Your task to perform on an android device: toggle show notifications on the lock screen Image 0: 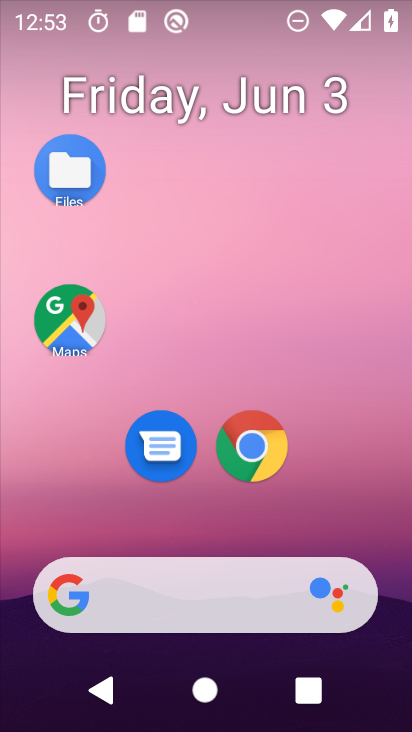
Step 0: drag from (222, 371) to (150, 115)
Your task to perform on an android device: toggle show notifications on the lock screen Image 1: 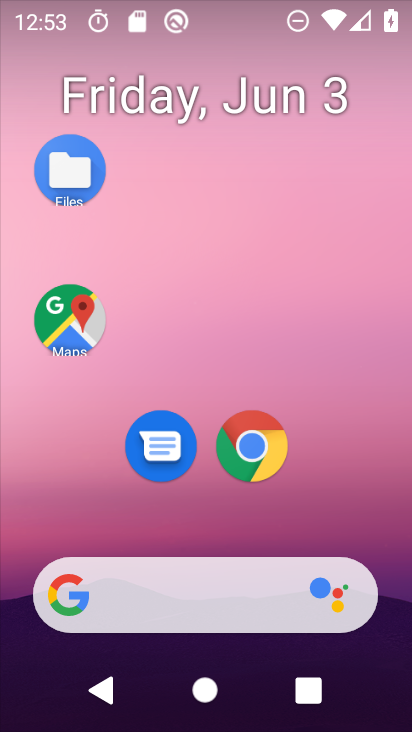
Step 1: drag from (227, 600) to (168, 159)
Your task to perform on an android device: toggle show notifications on the lock screen Image 2: 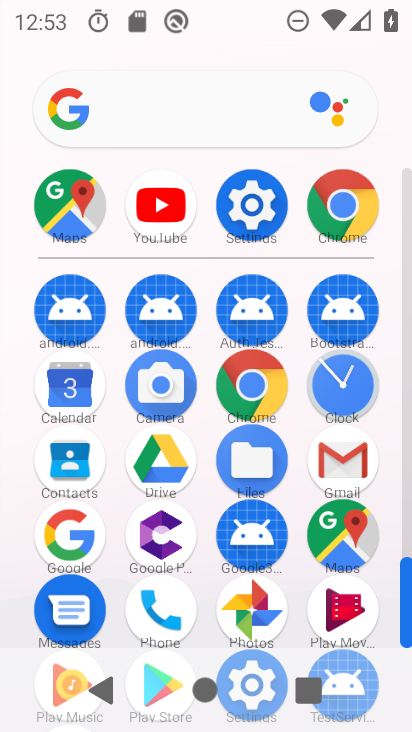
Step 2: drag from (251, 591) to (221, 179)
Your task to perform on an android device: toggle show notifications on the lock screen Image 3: 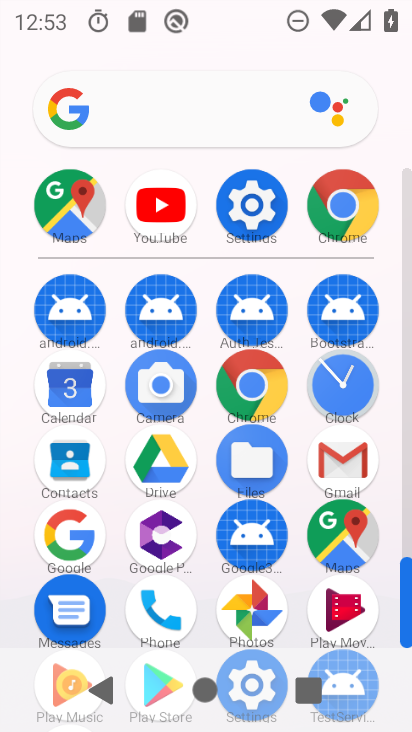
Step 3: drag from (269, 529) to (170, 167)
Your task to perform on an android device: toggle show notifications on the lock screen Image 4: 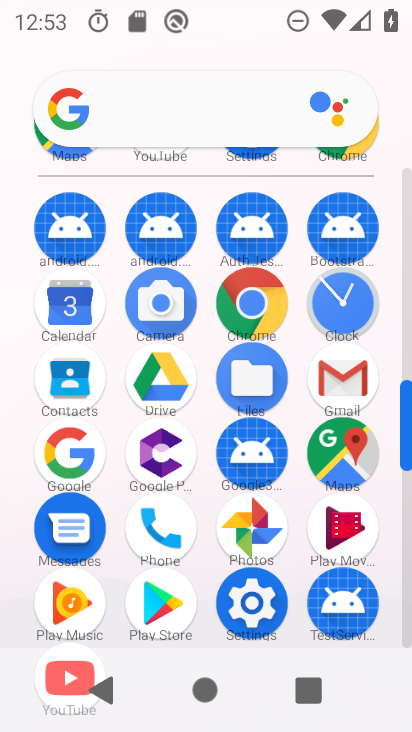
Step 4: click (215, 27)
Your task to perform on an android device: toggle show notifications on the lock screen Image 5: 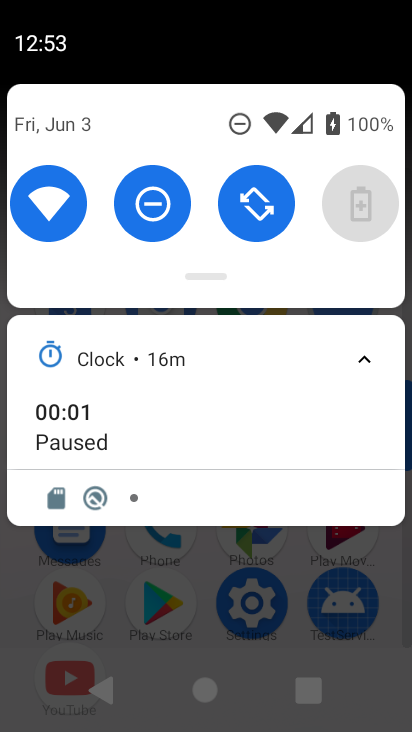
Step 5: drag from (244, 357) to (197, 27)
Your task to perform on an android device: toggle show notifications on the lock screen Image 6: 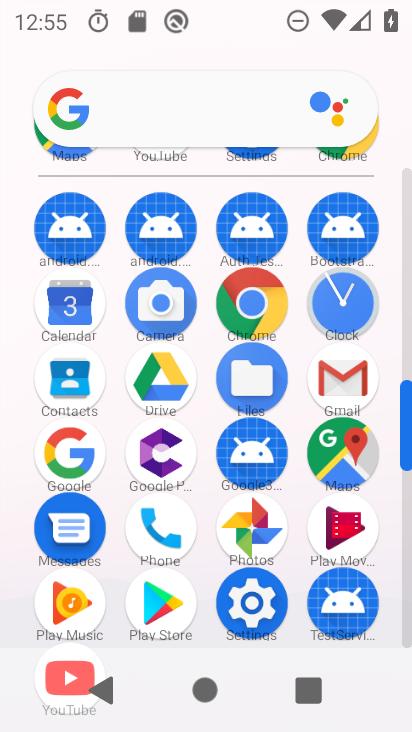
Step 6: click (338, 307)
Your task to perform on an android device: toggle show notifications on the lock screen Image 7: 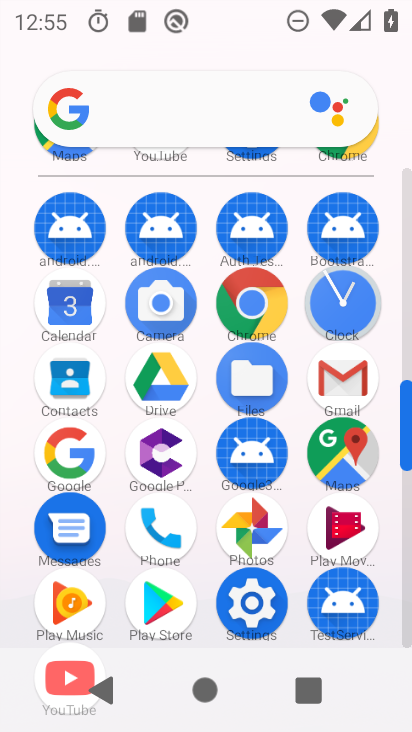
Step 7: click (337, 307)
Your task to perform on an android device: toggle show notifications on the lock screen Image 8: 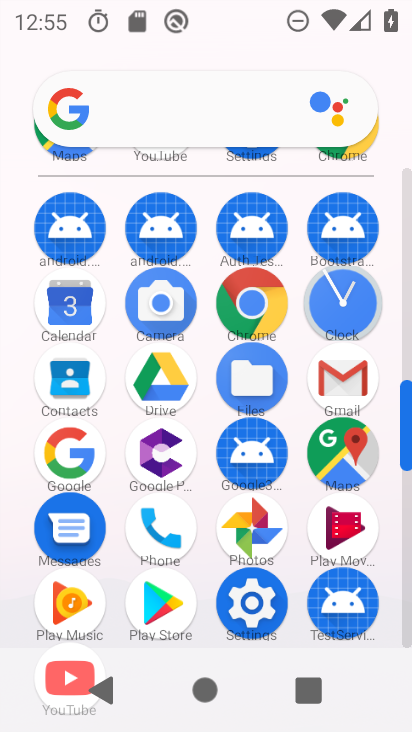
Step 8: click (336, 307)
Your task to perform on an android device: toggle show notifications on the lock screen Image 9: 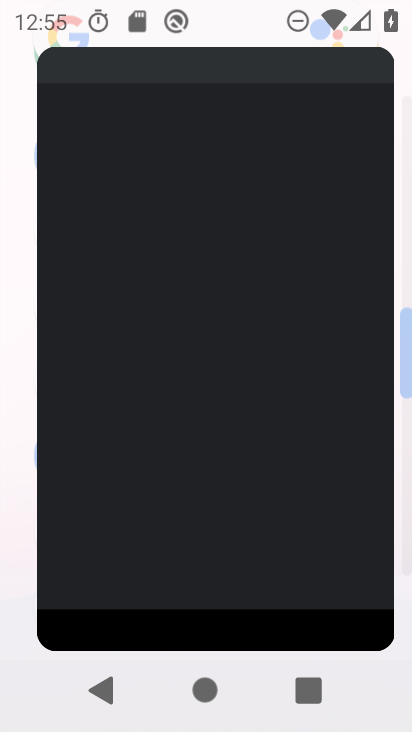
Step 9: click (336, 307)
Your task to perform on an android device: toggle show notifications on the lock screen Image 10: 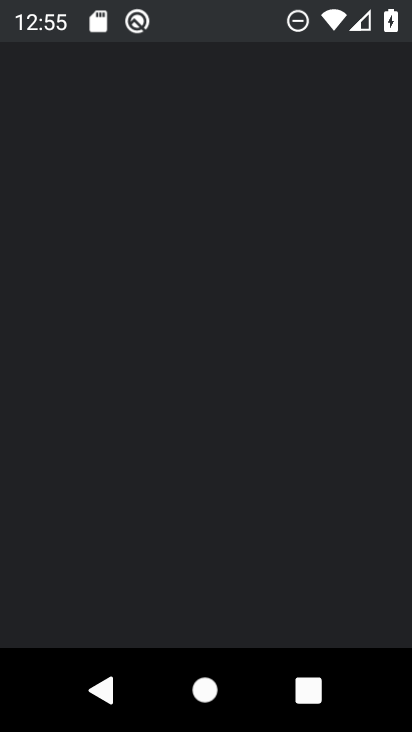
Step 10: click (336, 307)
Your task to perform on an android device: toggle show notifications on the lock screen Image 11: 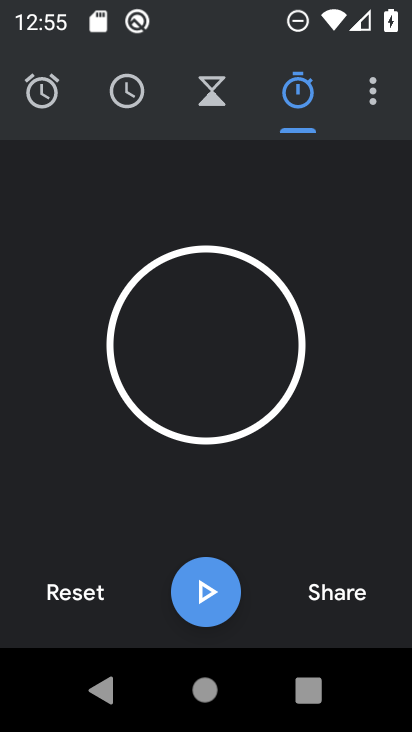
Step 11: press home button
Your task to perform on an android device: toggle show notifications on the lock screen Image 12: 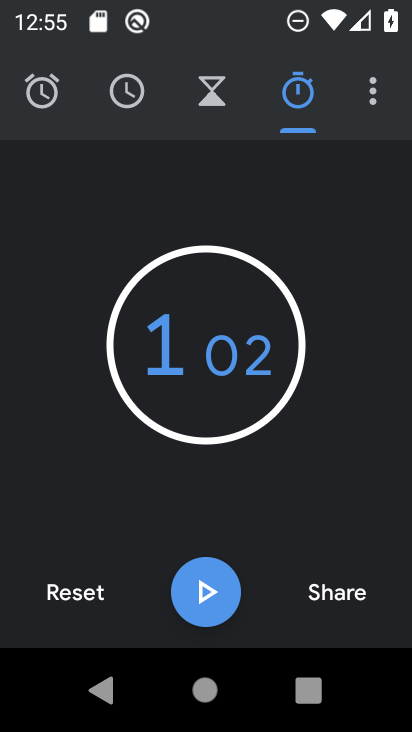
Step 12: press home button
Your task to perform on an android device: toggle show notifications on the lock screen Image 13: 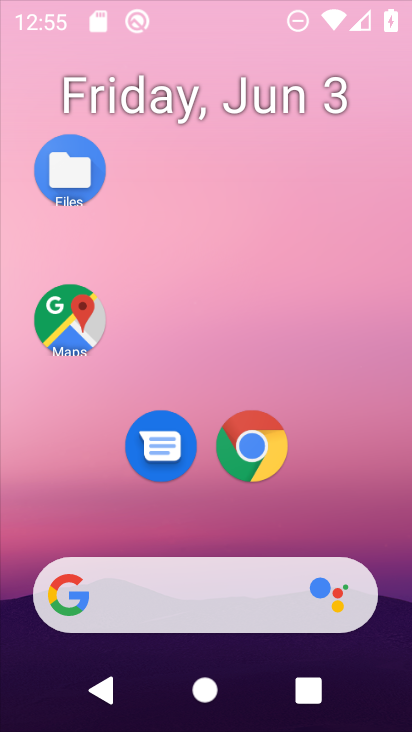
Step 13: press home button
Your task to perform on an android device: toggle show notifications on the lock screen Image 14: 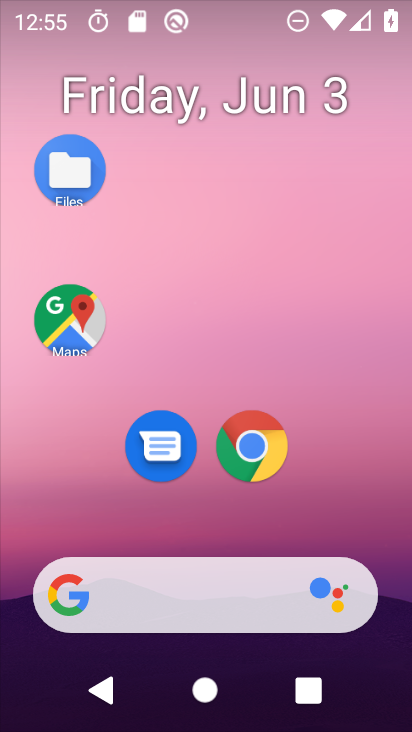
Step 14: press home button
Your task to perform on an android device: toggle show notifications on the lock screen Image 15: 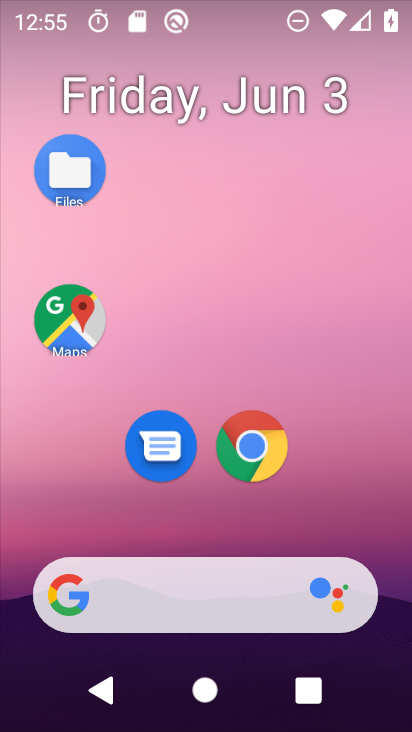
Step 15: press home button
Your task to perform on an android device: toggle show notifications on the lock screen Image 16: 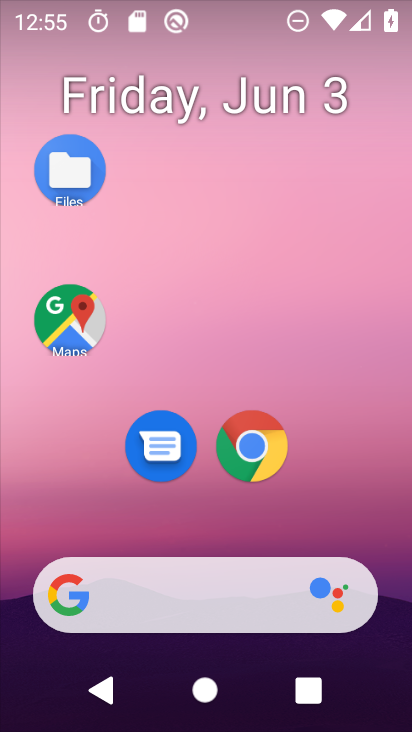
Step 16: drag from (261, 677) to (219, 33)
Your task to perform on an android device: toggle show notifications on the lock screen Image 17: 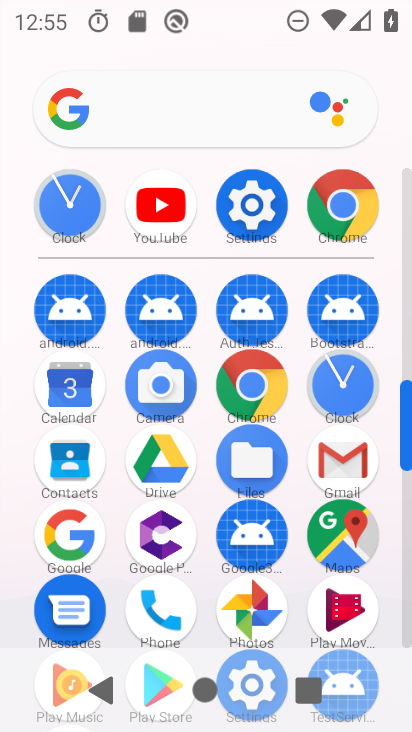
Step 17: click (247, 205)
Your task to perform on an android device: toggle show notifications on the lock screen Image 18: 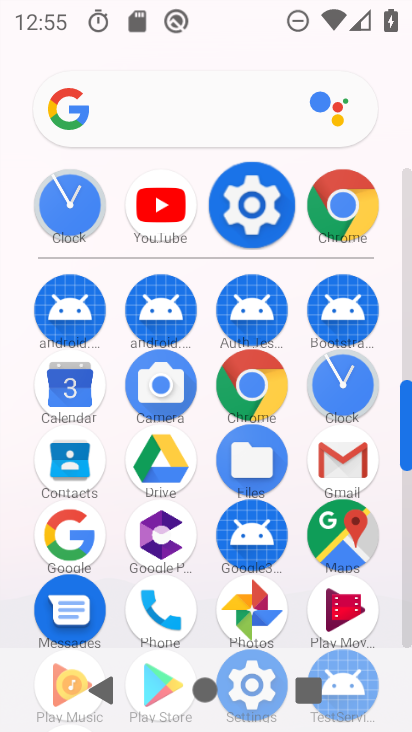
Step 18: click (243, 201)
Your task to perform on an android device: toggle show notifications on the lock screen Image 19: 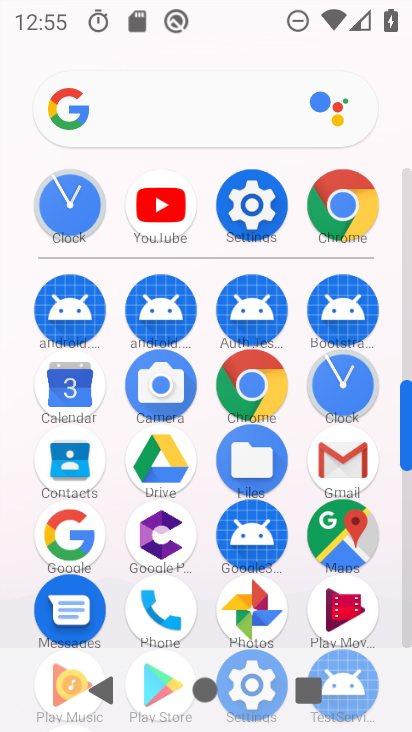
Step 19: click (247, 194)
Your task to perform on an android device: toggle show notifications on the lock screen Image 20: 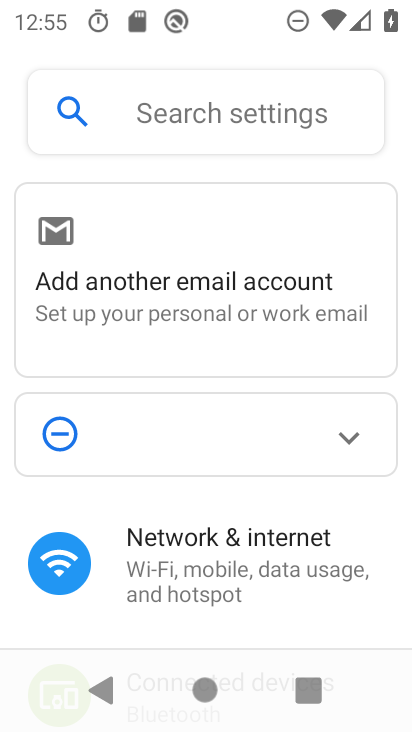
Step 20: drag from (244, 546) to (162, 185)
Your task to perform on an android device: toggle show notifications on the lock screen Image 21: 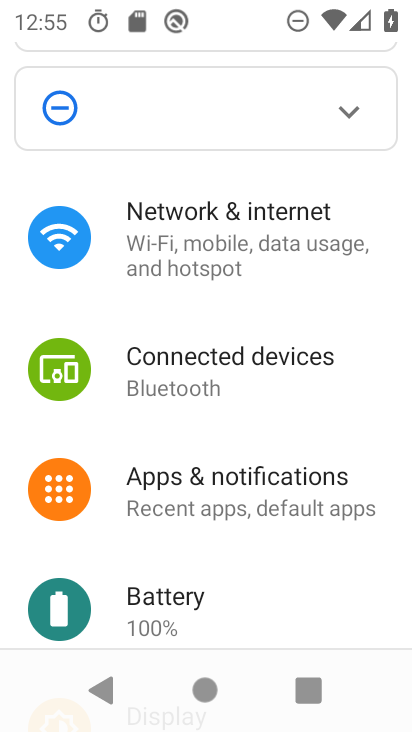
Step 21: drag from (197, 483) to (160, 270)
Your task to perform on an android device: toggle show notifications on the lock screen Image 22: 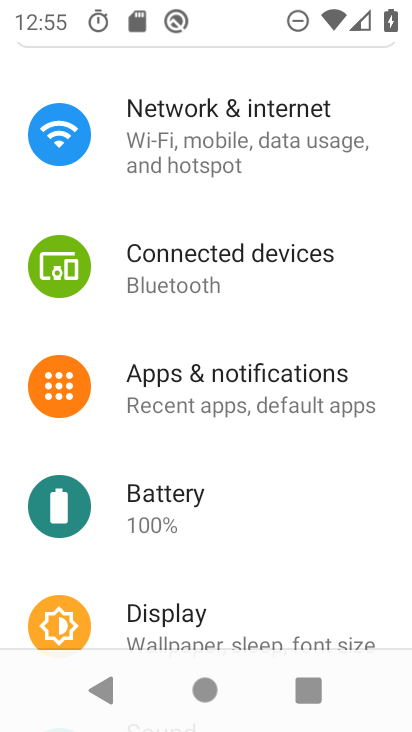
Step 22: drag from (256, 535) to (215, 267)
Your task to perform on an android device: toggle show notifications on the lock screen Image 23: 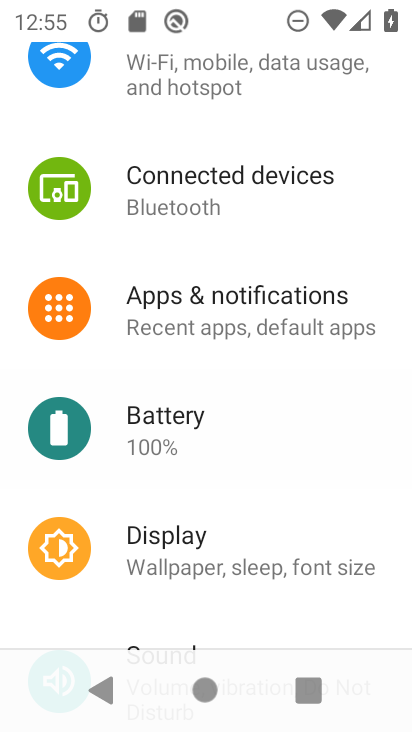
Step 23: click (234, 179)
Your task to perform on an android device: toggle show notifications on the lock screen Image 24: 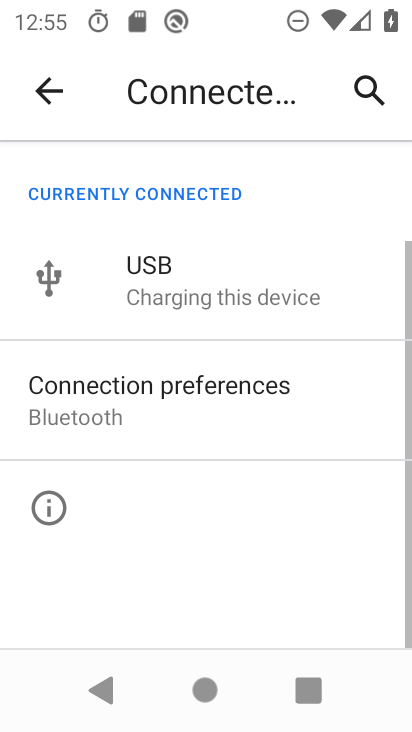
Step 24: click (237, 294)
Your task to perform on an android device: toggle show notifications on the lock screen Image 25: 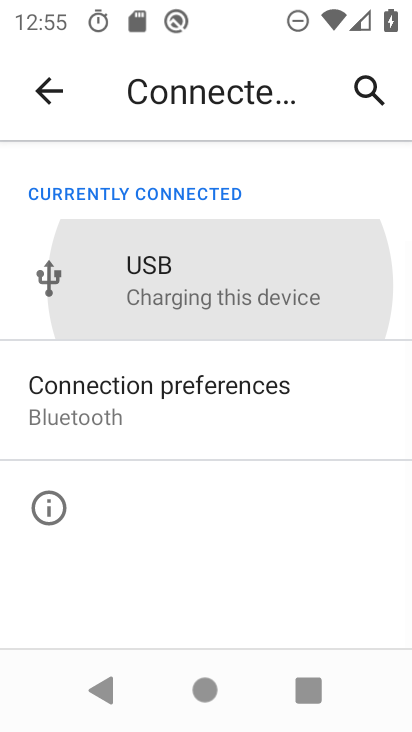
Step 25: click (237, 294)
Your task to perform on an android device: toggle show notifications on the lock screen Image 26: 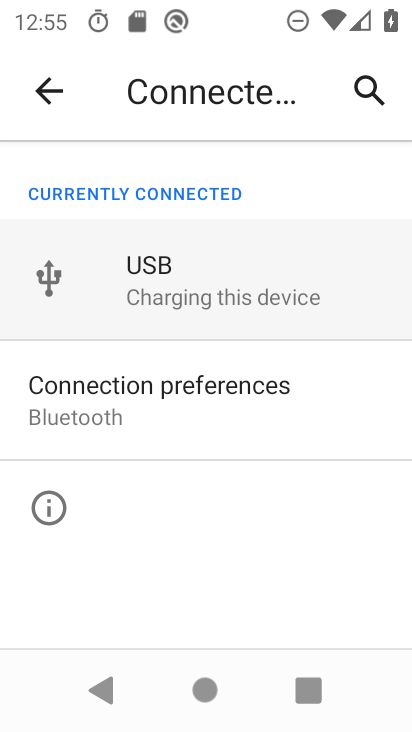
Step 26: click (237, 294)
Your task to perform on an android device: toggle show notifications on the lock screen Image 27: 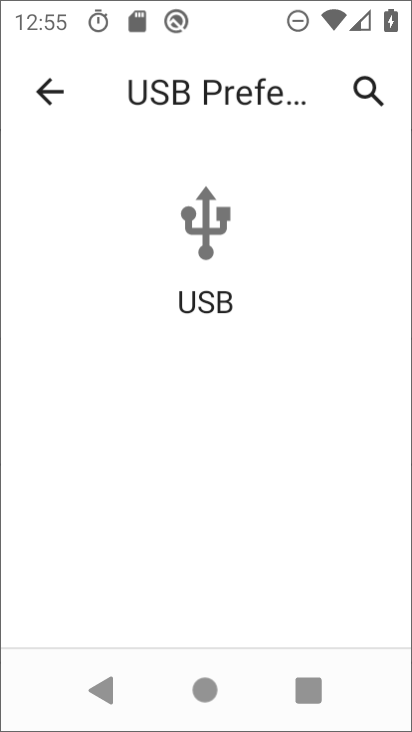
Step 27: click (237, 294)
Your task to perform on an android device: toggle show notifications on the lock screen Image 28: 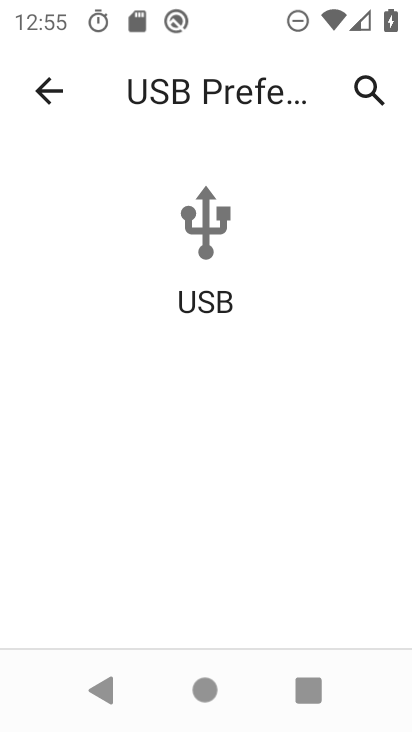
Step 28: click (43, 83)
Your task to perform on an android device: toggle show notifications on the lock screen Image 29: 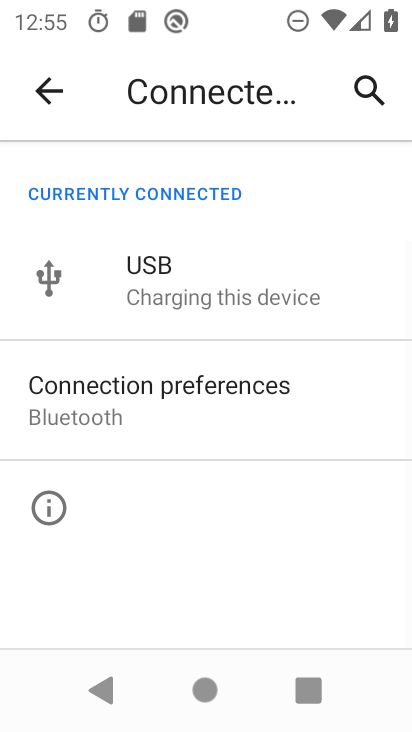
Step 29: click (50, 89)
Your task to perform on an android device: toggle show notifications on the lock screen Image 30: 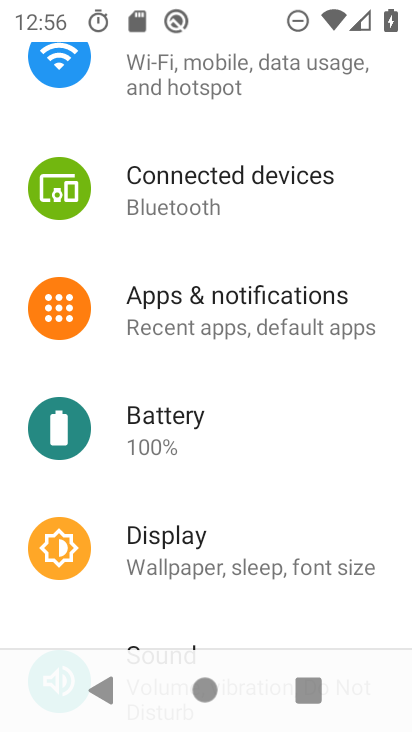
Step 30: click (239, 310)
Your task to perform on an android device: toggle show notifications on the lock screen Image 31: 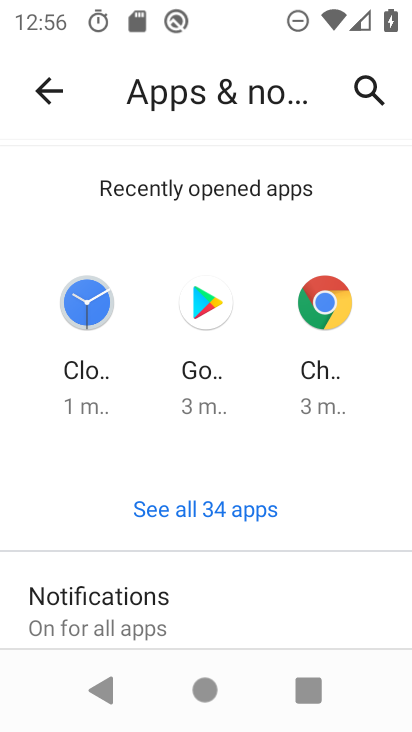
Step 31: drag from (183, 569) to (133, 215)
Your task to perform on an android device: toggle show notifications on the lock screen Image 32: 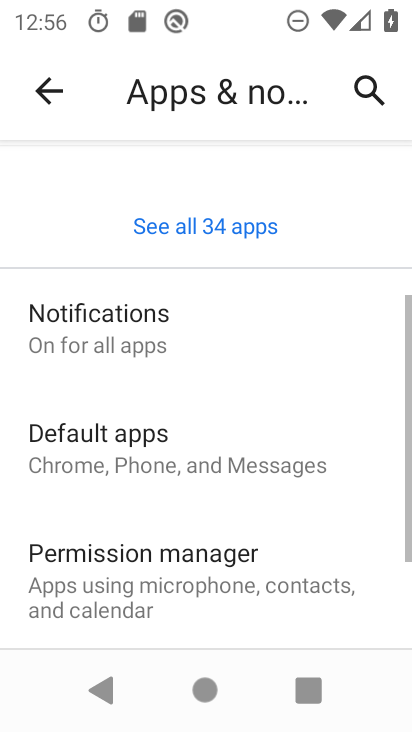
Step 32: drag from (193, 489) to (141, 234)
Your task to perform on an android device: toggle show notifications on the lock screen Image 33: 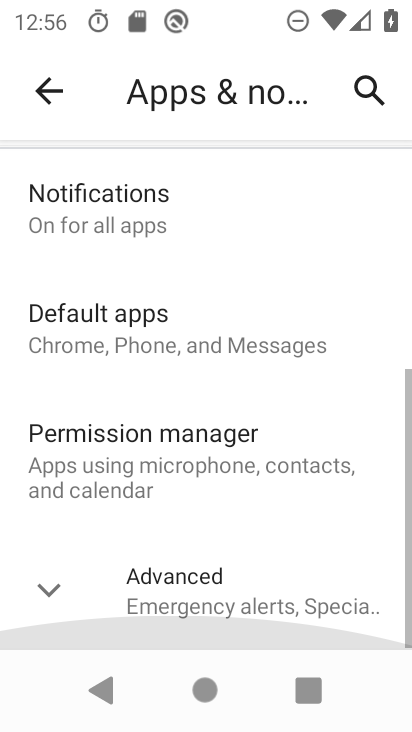
Step 33: drag from (213, 550) to (220, 211)
Your task to perform on an android device: toggle show notifications on the lock screen Image 34: 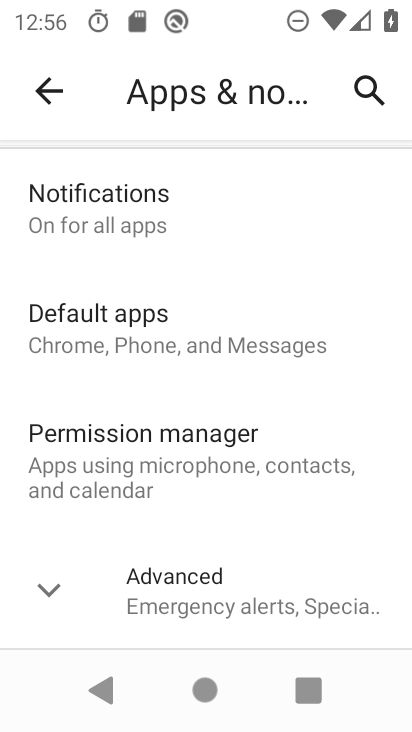
Step 34: click (76, 252)
Your task to perform on an android device: toggle show notifications on the lock screen Image 35: 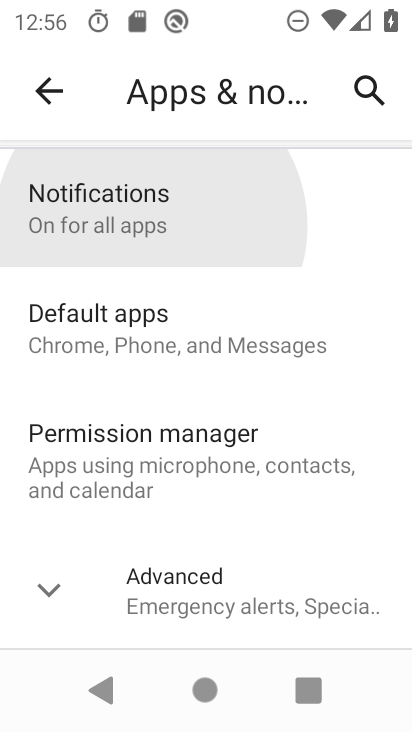
Step 35: click (75, 251)
Your task to perform on an android device: toggle show notifications on the lock screen Image 36: 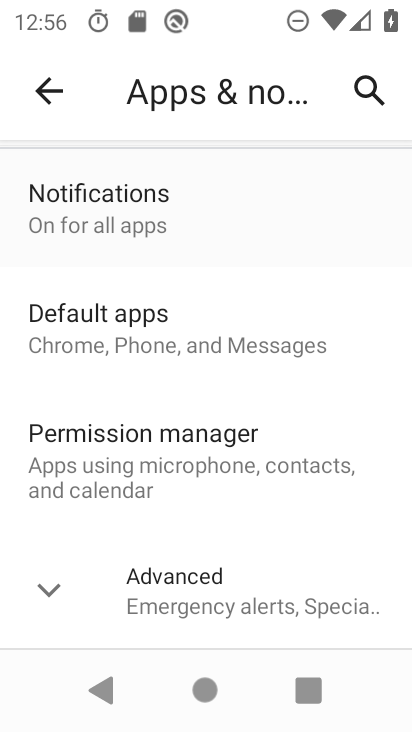
Step 36: click (76, 256)
Your task to perform on an android device: toggle show notifications on the lock screen Image 37: 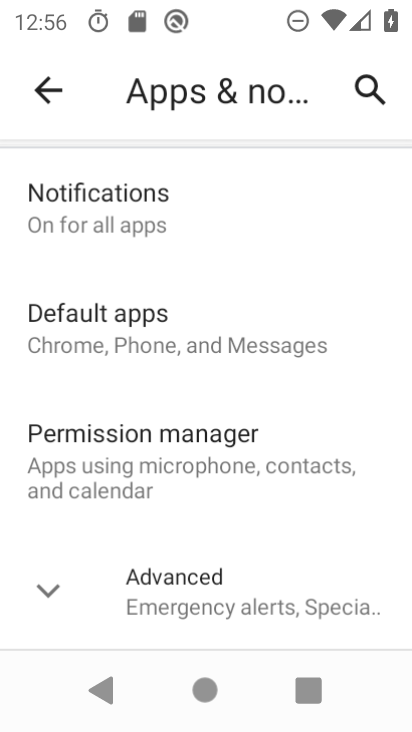
Step 37: click (77, 210)
Your task to perform on an android device: toggle show notifications on the lock screen Image 38: 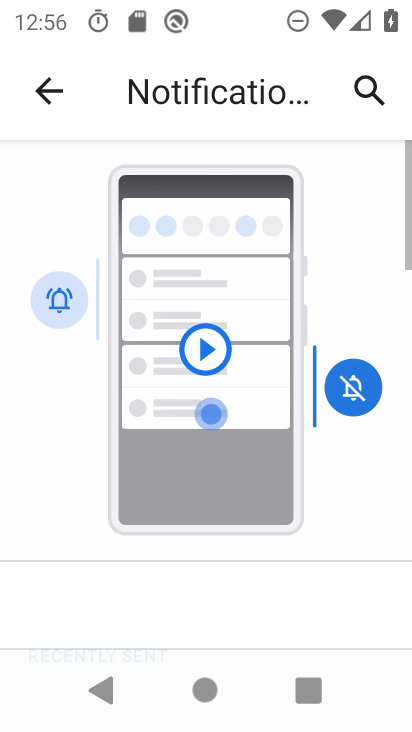
Step 38: drag from (281, 545) to (277, 82)
Your task to perform on an android device: toggle show notifications on the lock screen Image 39: 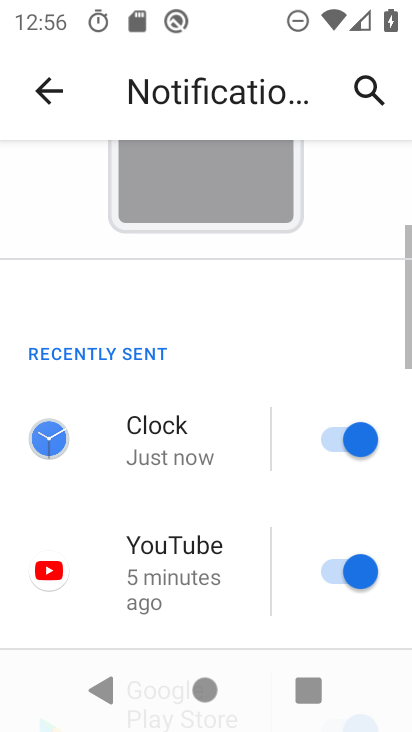
Step 39: drag from (209, 484) to (173, 122)
Your task to perform on an android device: toggle show notifications on the lock screen Image 40: 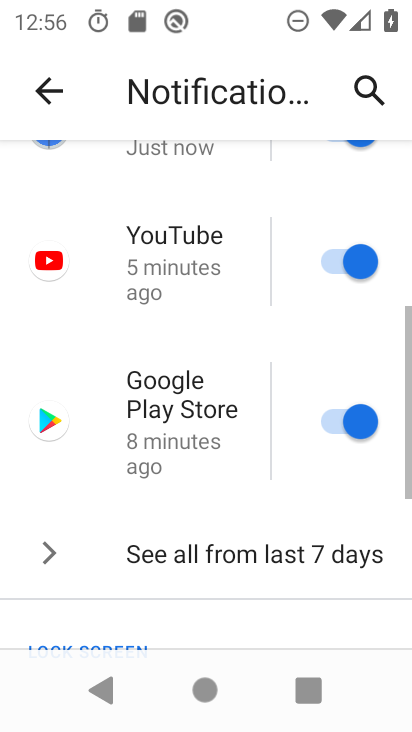
Step 40: drag from (164, 537) to (156, 248)
Your task to perform on an android device: toggle show notifications on the lock screen Image 41: 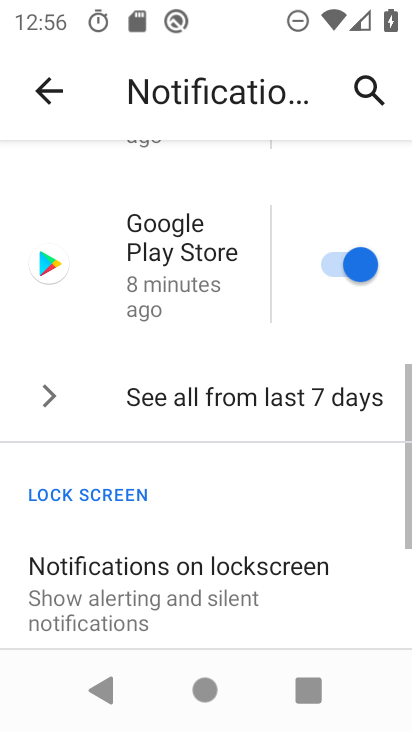
Step 41: drag from (217, 419) to (207, 165)
Your task to perform on an android device: toggle show notifications on the lock screen Image 42: 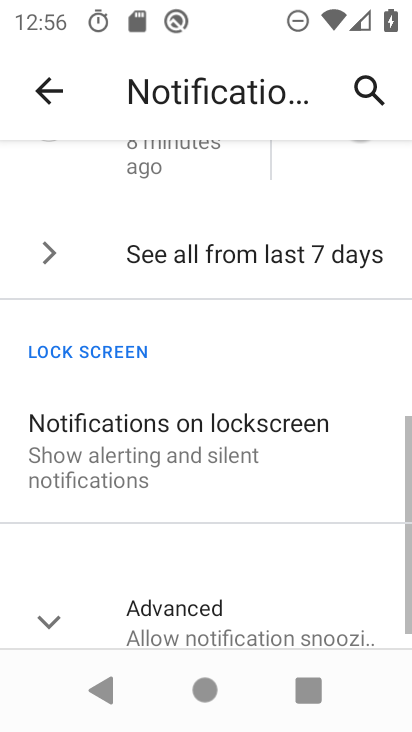
Step 42: drag from (181, 435) to (150, 184)
Your task to perform on an android device: toggle show notifications on the lock screen Image 43: 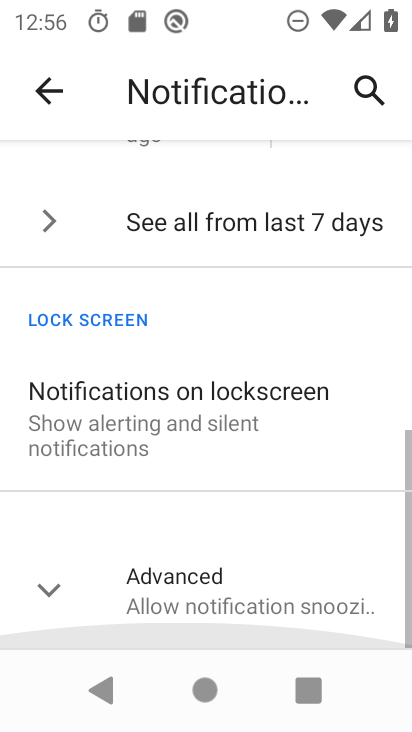
Step 43: drag from (202, 474) to (198, 274)
Your task to perform on an android device: toggle show notifications on the lock screen Image 44: 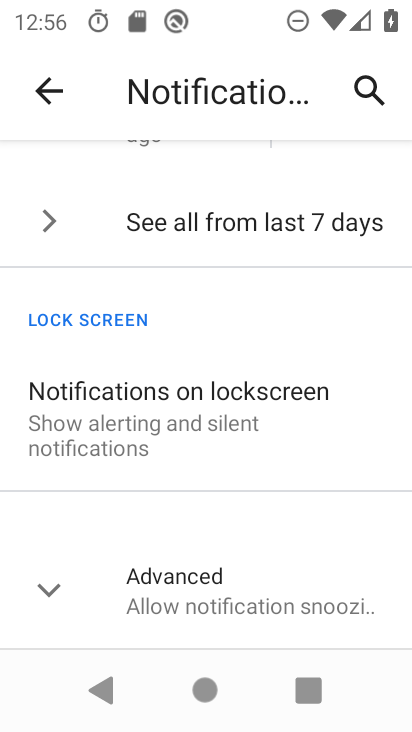
Step 44: click (183, 411)
Your task to perform on an android device: toggle show notifications on the lock screen Image 45: 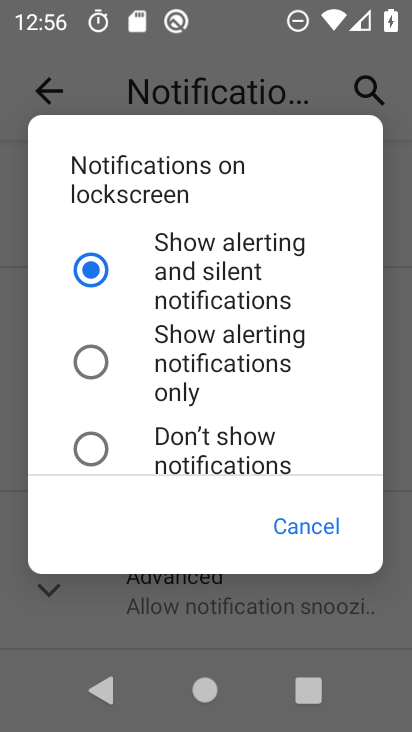
Step 45: task complete